Your task to perform on an android device: Go to accessibility settings Image 0: 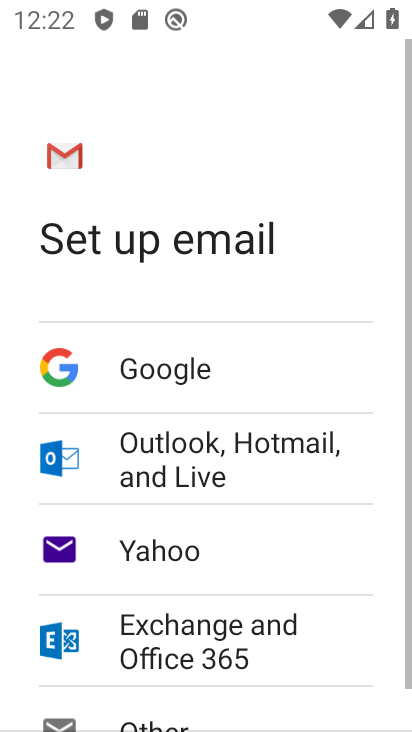
Step 0: press home button
Your task to perform on an android device: Go to accessibility settings Image 1: 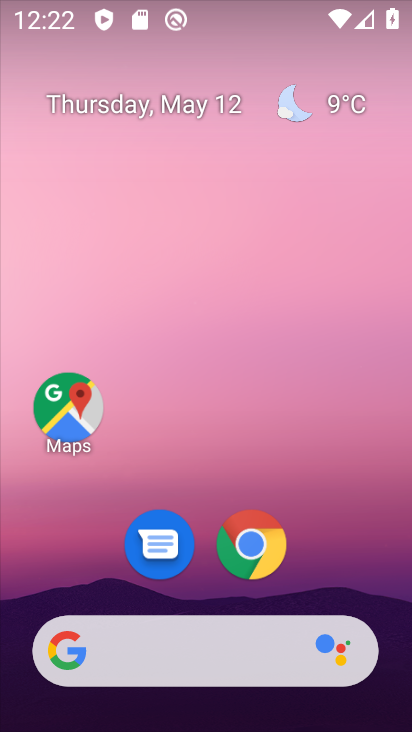
Step 1: drag from (221, 725) to (210, 155)
Your task to perform on an android device: Go to accessibility settings Image 2: 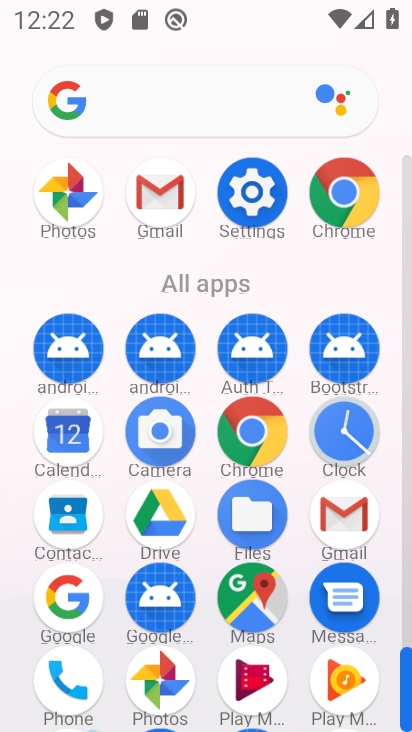
Step 2: click (246, 181)
Your task to perform on an android device: Go to accessibility settings Image 3: 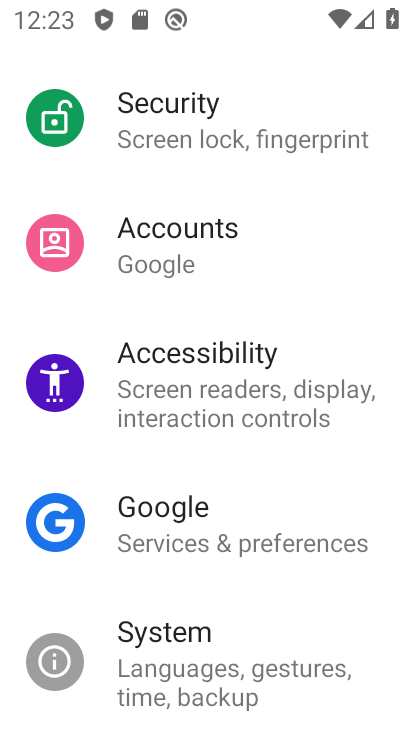
Step 3: click (174, 339)
Your task to perform on an android device: Go to accessibility settings Image 4: 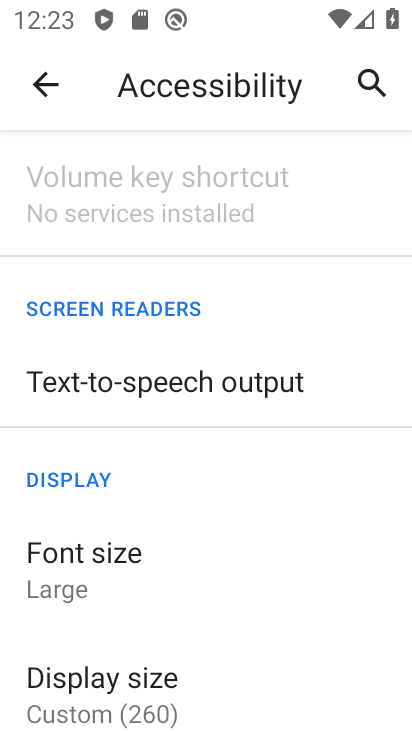
Step 4: task complete